Your task to perform on an android device: change the clock display to digital Image 0: 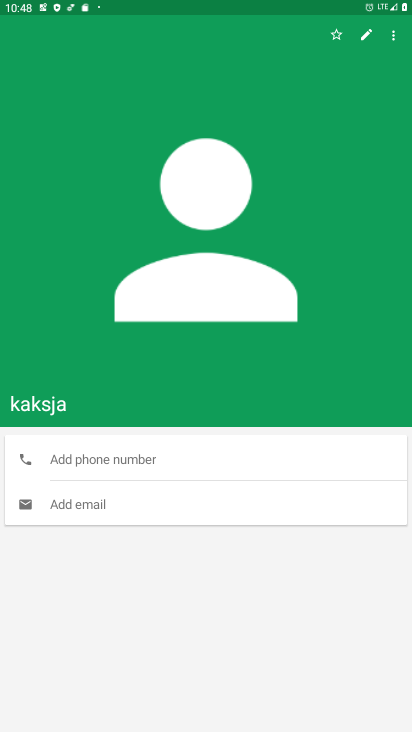
Step 0: press home button
Your task to perform on an android device: change the clock display to digital Image 1: 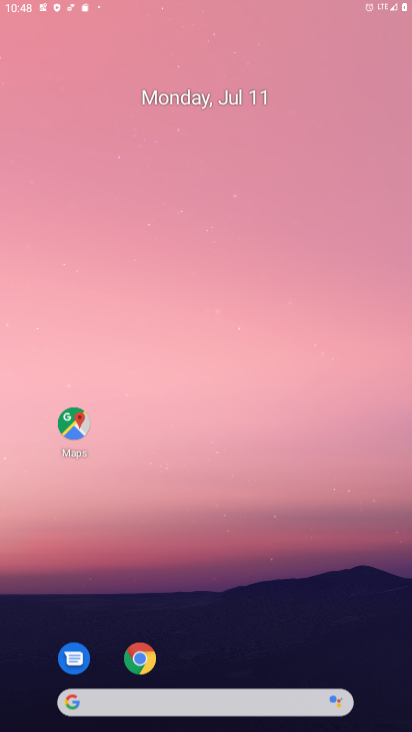
Step 1: drag from (148, 582) to (175, 86)
Your task to perform on an android device: change the clock display to digital Image 2: 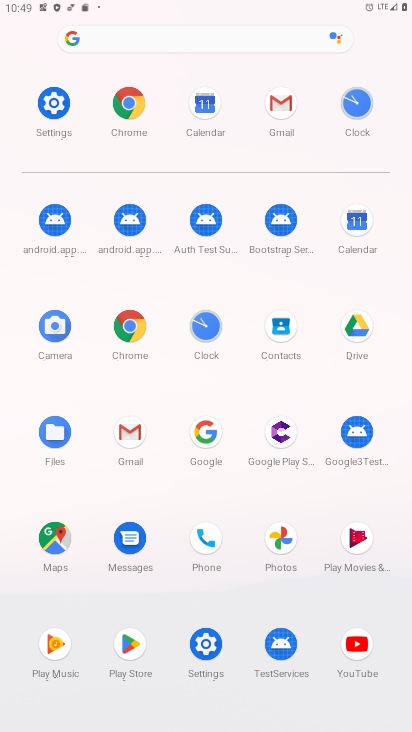
Step 2: click (204, 331)
Your task to perform on an android device: change the clock display to digital Image 3: 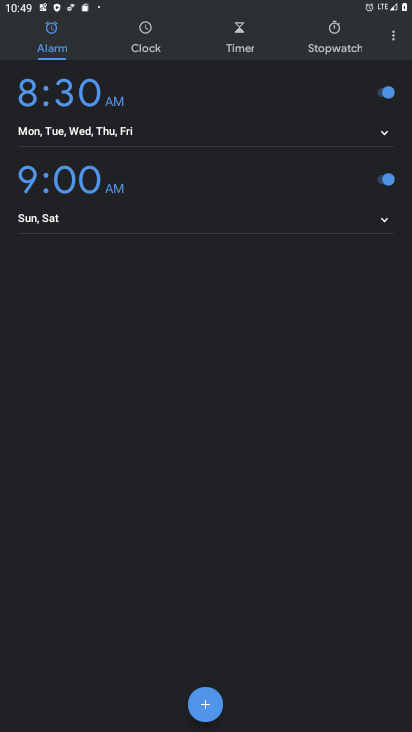
Step 3: click (389, 40)
Your task to perform on an android device: change the clock display to digital Image 4: 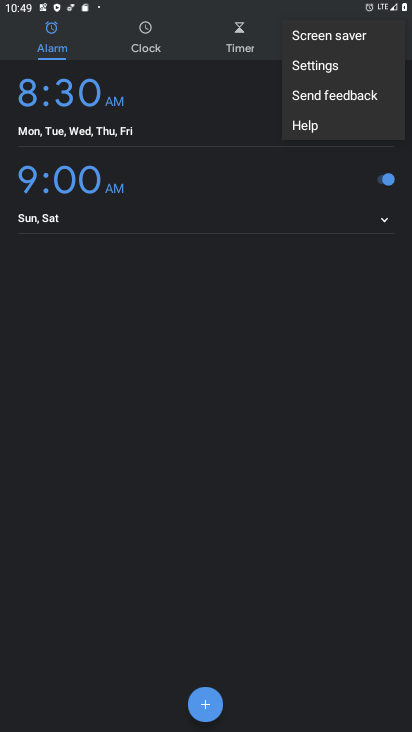
Step 4: click (316, 71)
Your task to perform on an android device: change the clock display to digital Image 5: 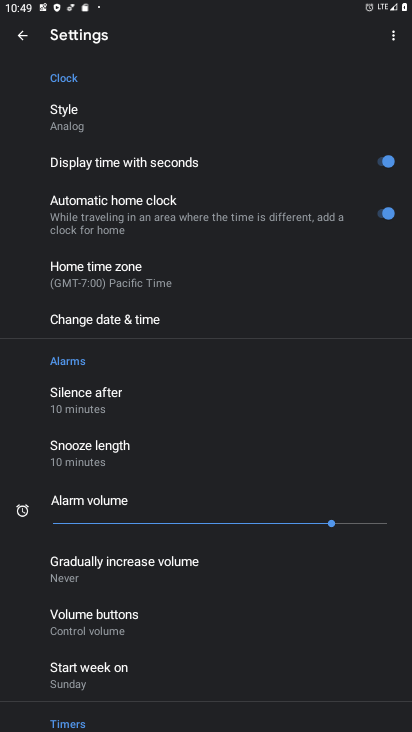
Step 5: click (72, 118)
Your task to perform on an android device: change the clock display to digital Image 6: 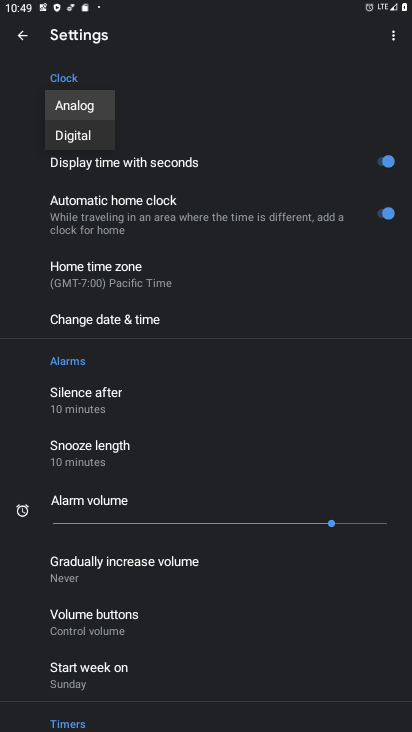
Step 6: click (92, 137)
Your task to perform on an android device: change the clock display to digital Image 7: 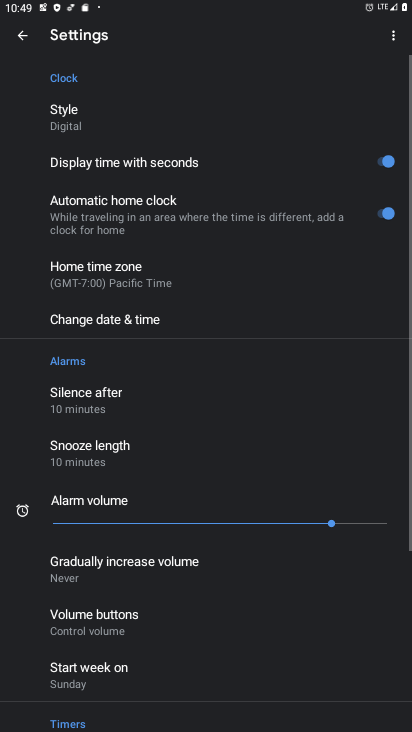
Step 7: task complete